Your task to perform on an android device: open chrome privacy settings Image 0: 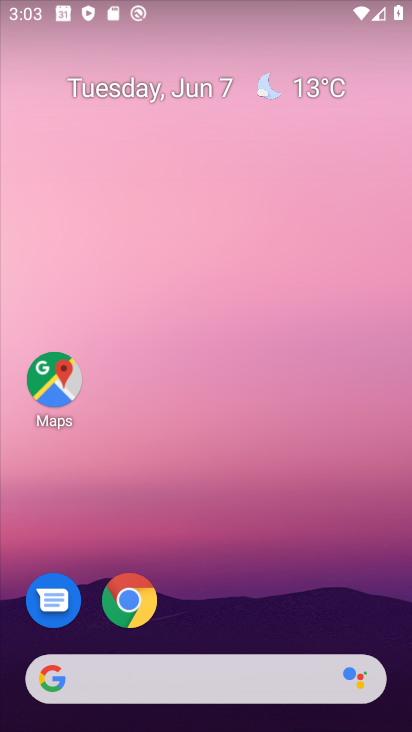
Step 0: drag from (238, 595) to (251, 107)
Your task to perform on an android device: open chrome privacy settings Image 1: 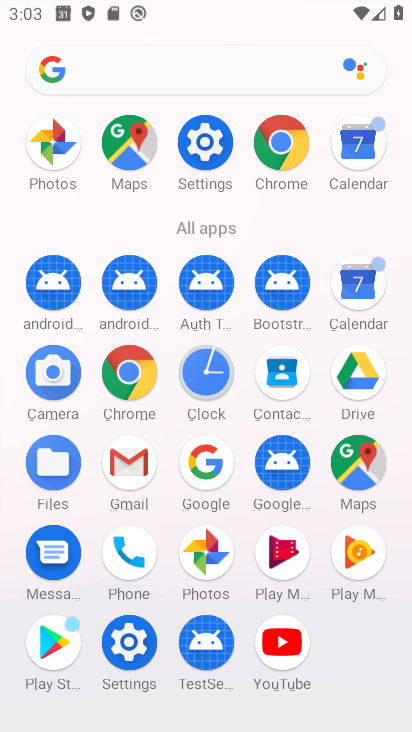
Step 1: click (206, 151)
Your task to perform on an android device: open chrome privacy settings Image 2: 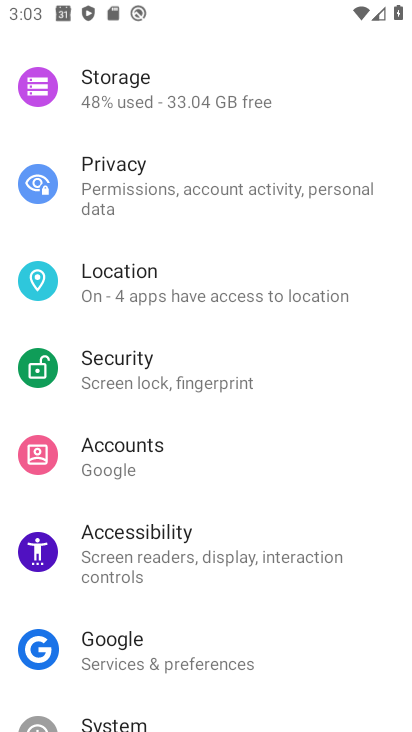
Step 2: click (155, 175)
Your task to perform on an android device: open chrome privacy settings Image 3: 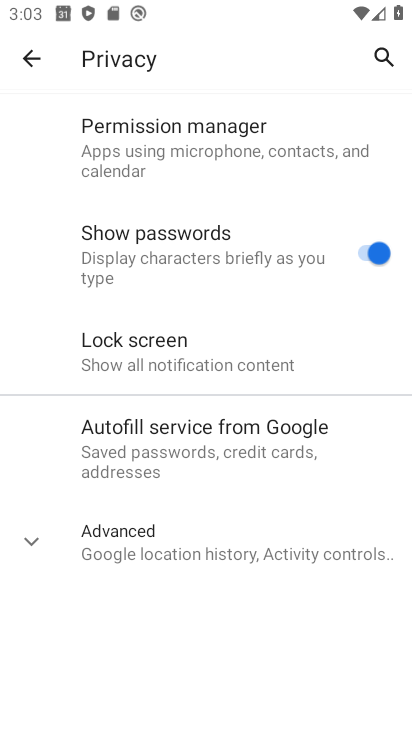
Step 3: task complete